Your task to perform on an android device: turn on bluetooth scan Image 0: 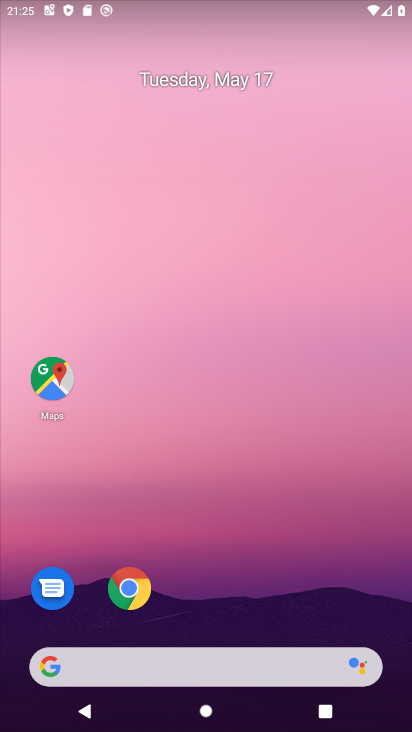
Step 0: drag from (228, 642) to (225, 107)
Your task to perform on an android device: turn on bluetooth scan Image 1: 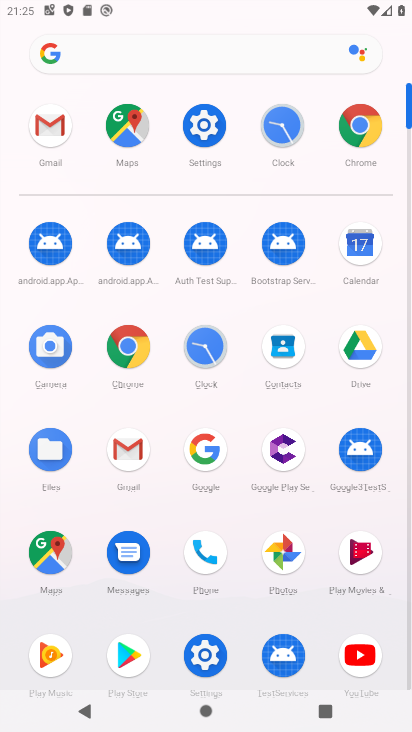
Step 1: click (194, 128)
Your task to perform on an android device: turn on bluetooth scan Image 2: 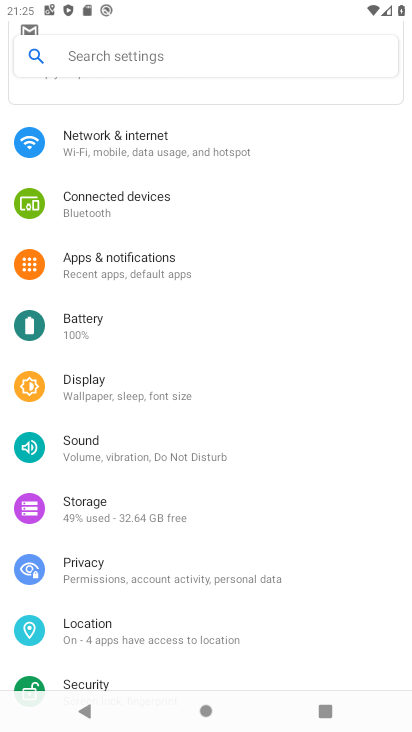
Step 2: drag from (141, 638) to (127, 207)
Your task to perform on an android device: turn on bluetooth scan Image 3: 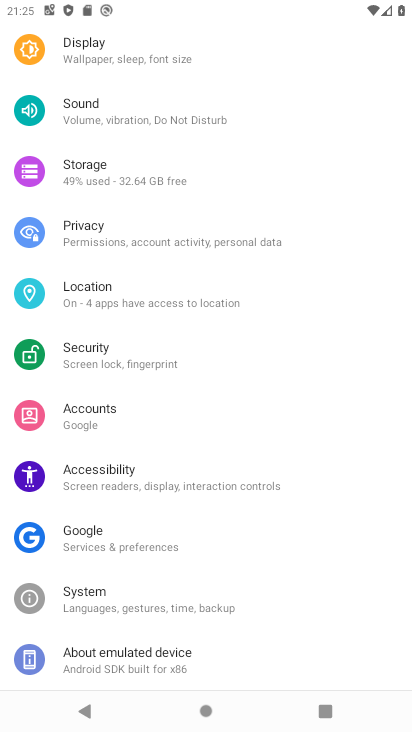
Step 3: drag from (126, 206) to (110, 540)
Your task to perform on an android device: turn on bluetooth scan Image 4: 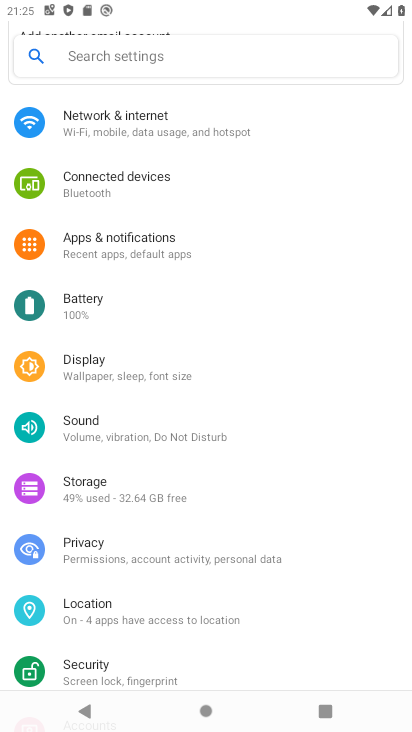
Step 4: click (102, 614)
Your task to perform on an android device: turn on bluetooth scan Image 5: 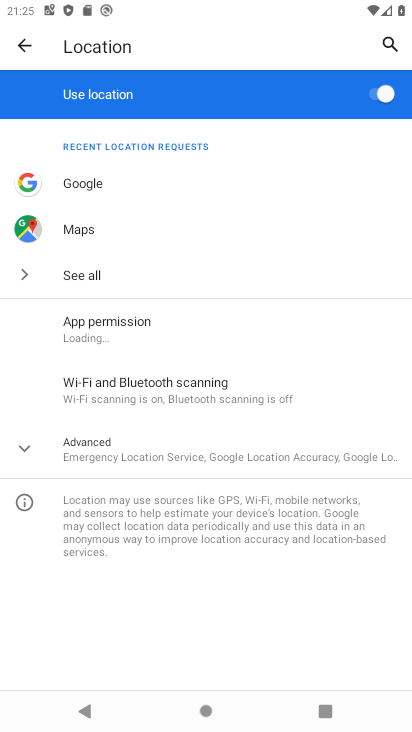
Step 5: click (153, 456)
Your task to perform on an android device: turn on bluetooth scan Image 6: 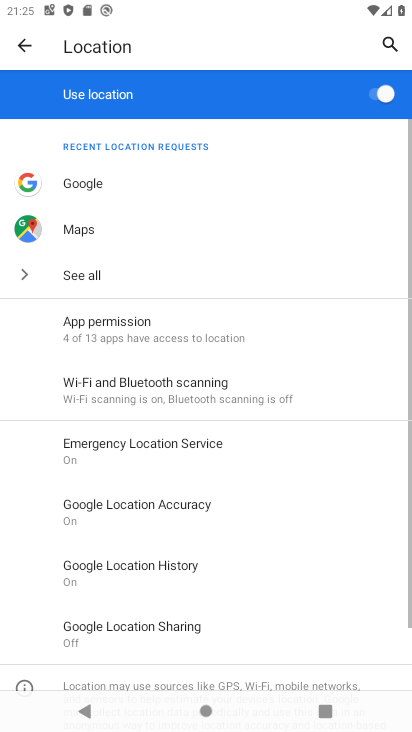
Step 6: click (136, 393)
Your task to perform on an android device: turn on bluetooth scan Image 7: 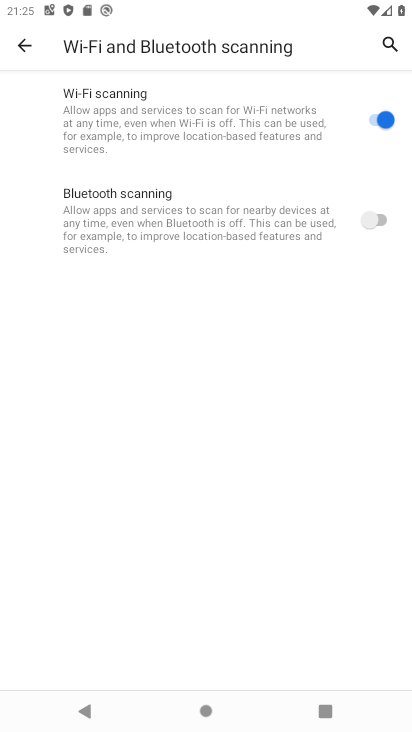
Step 7: click (379, 226)
Your task to perform on an android device: turn on bluetooth scan Image 8: 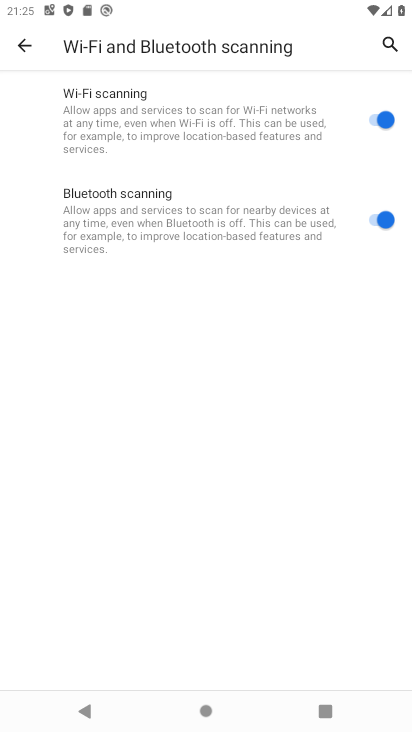
Step 8: task complete